Your task to perform on an android device: set default search engine in the chrome app Image 0: 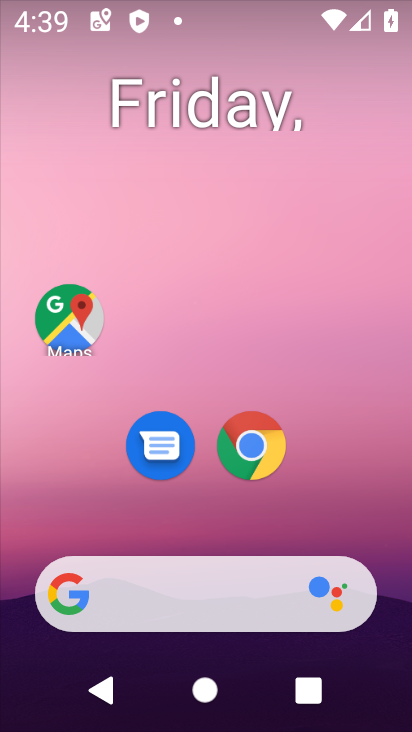
Step 0: click (261, 457)
Your task to perform on an android device: set default search engine in the chrome app Image 1: 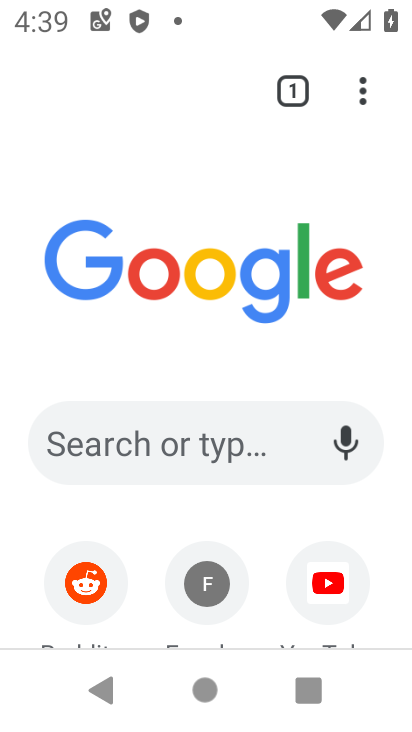
Step 1: click (365, 83)
Your task to perform on an android device: set default search engine in the chrome app Image 2: 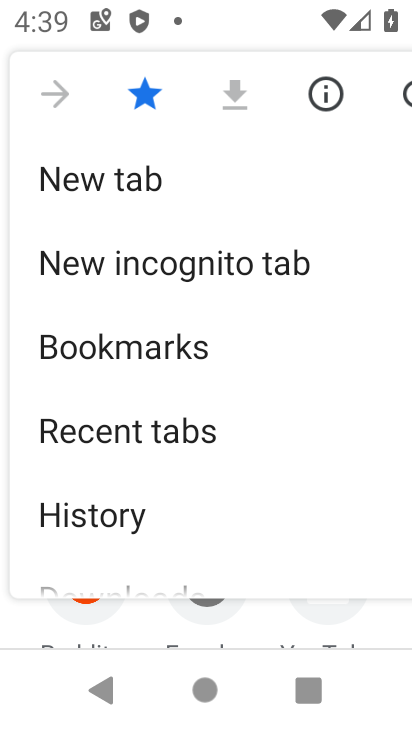
Step 2: drag from (326, 536) to (316, 132)
Your task to perform on an android device: set default search engine in the chrome app Image 3: 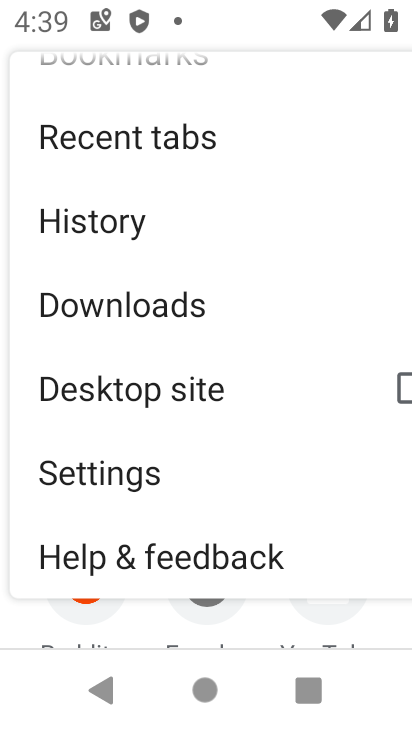
Step 3: click (125, 460)
Your task to perform on an android device: set default search engine in the chrome app Image 4: 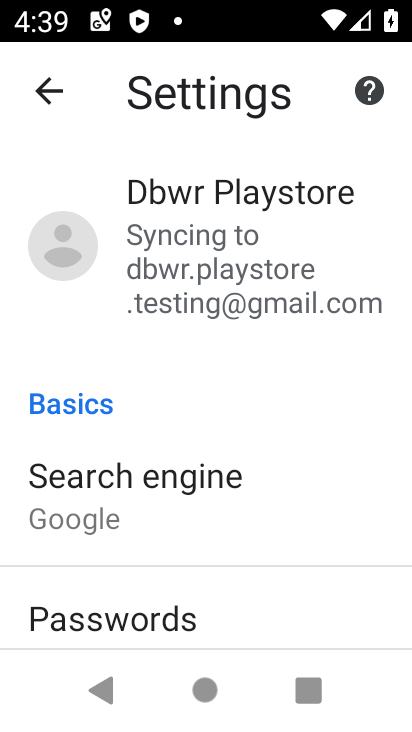
Step 4: click (71, 491)
Your task to perform on an android device: set default search engine in the chrome app Image 5: 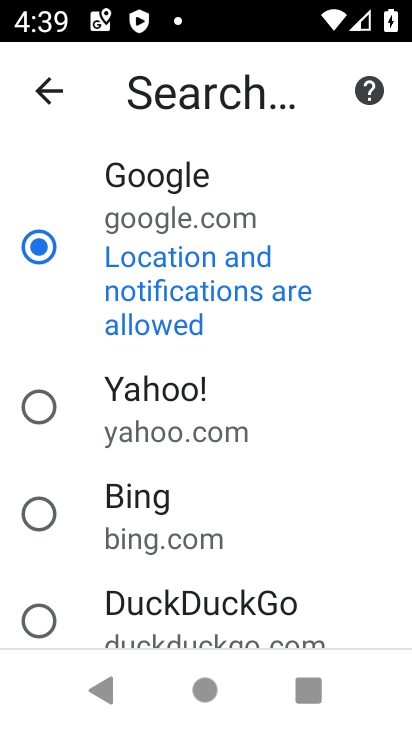
Step 5: task complete